Your task to perform on an android device: turn off sleep mode Image 0: 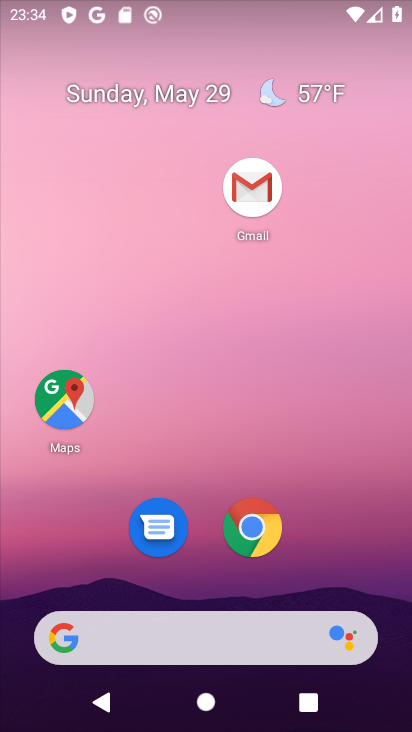
Step 0: drag from (325, 550) to (301, 167)
Your task to perform on an android device: turn off sleep mode Image 1: 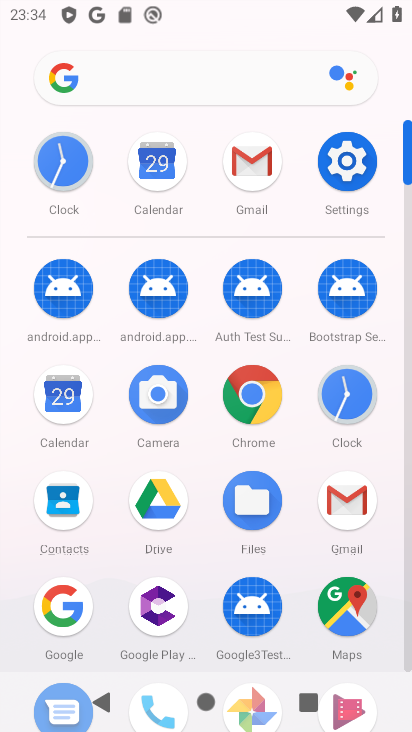
Step 1: click (347, 162)
Your task to perform on an android device: turn off sleep mode Image 2: 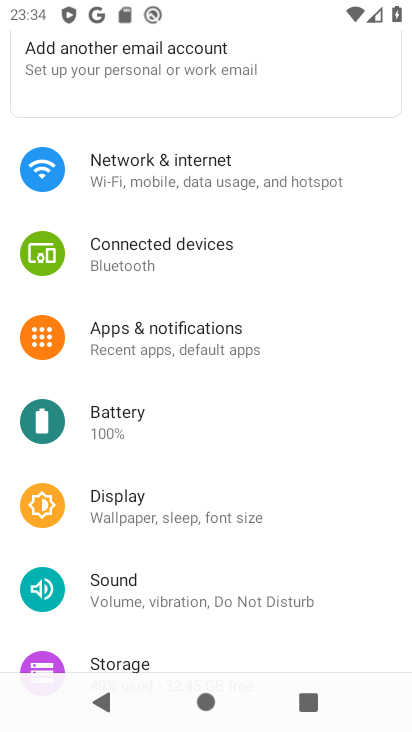
Step 2: drag from (172, 442) to (213, 363)
Your task to perform on an android device: turn off sleep mode Image 3: 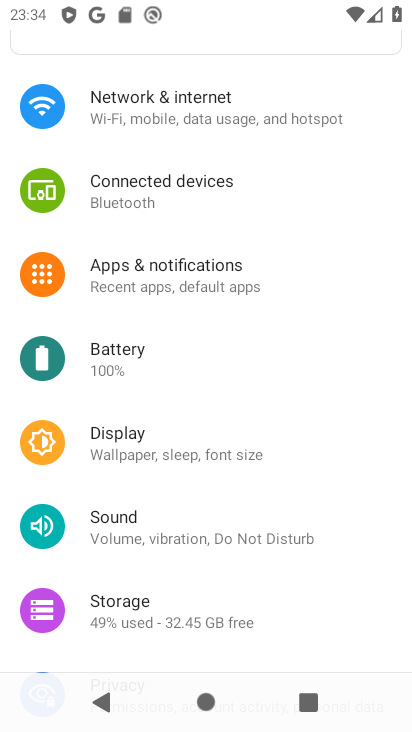
Step 3: drag from (177, 492) to (219, 406)
Your task to perform on an android device: turn off sleep mode Image 4: 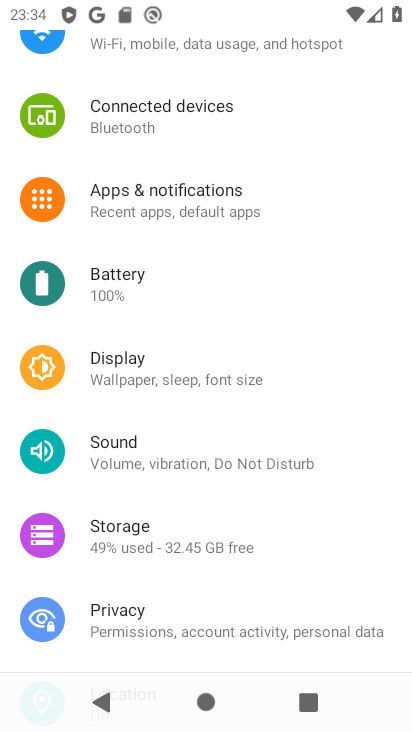
Step 4: drag from (187, 523) to (246, 441)
Your task to perform on an android device: turn off sleep mode Image 5: 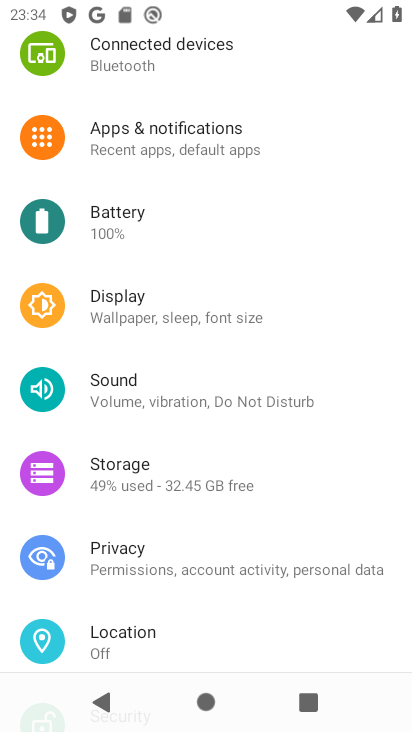
Step 5: click (226, 317)
Your task to perform on an android device: turn off sleep mode Image 6: 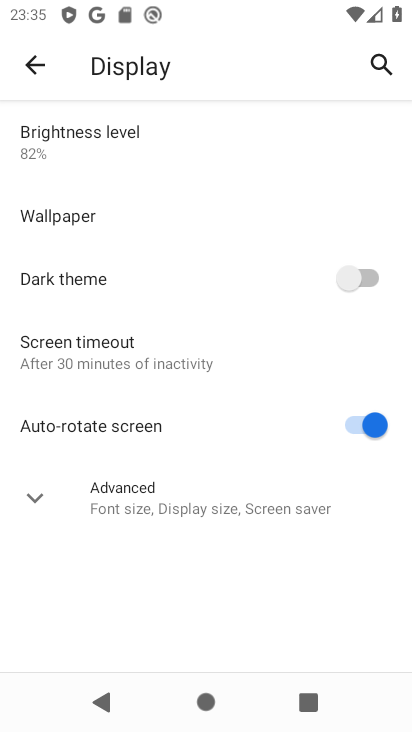
Step 6: click (190, 365)
Your task to perform on an android device: turn off sleep mode Image 7: 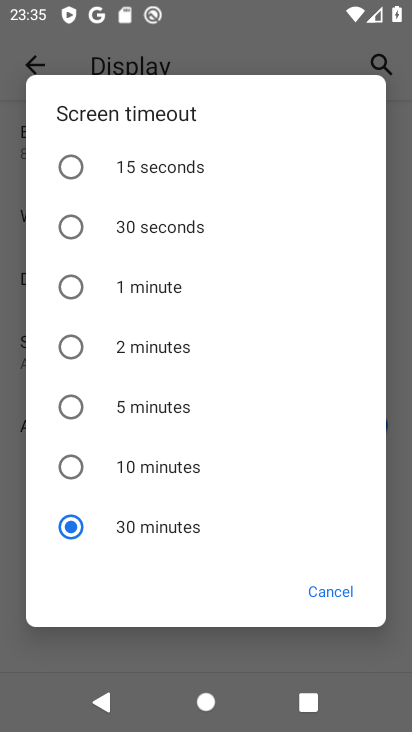
Step 7: click (322, 590)
Your task to perform on an android device: turn off sleep mode Image 8: 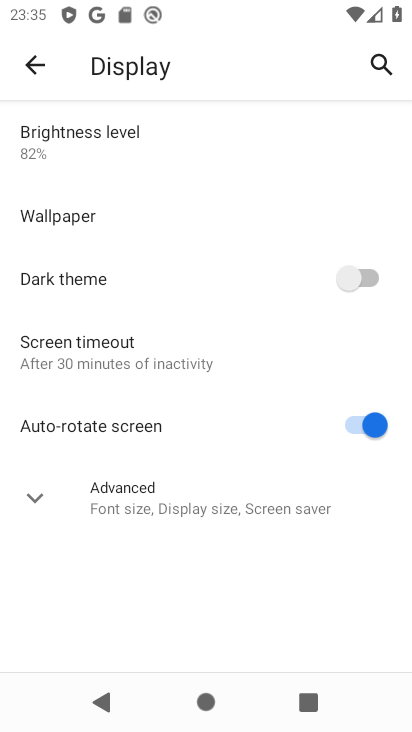
Step 8: click (227, 512)
Your task to perform on an android device: turn off sleep mode Image 9: 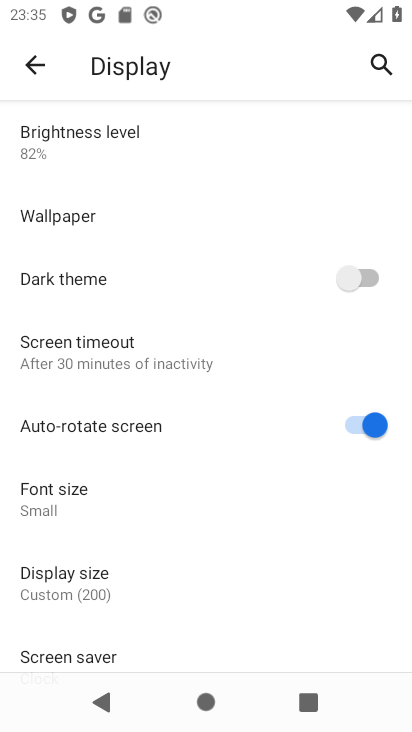
Step 9: task complete